Your task to perform on an android device: install app "Adobe Express: Graphic Design" Image 0: 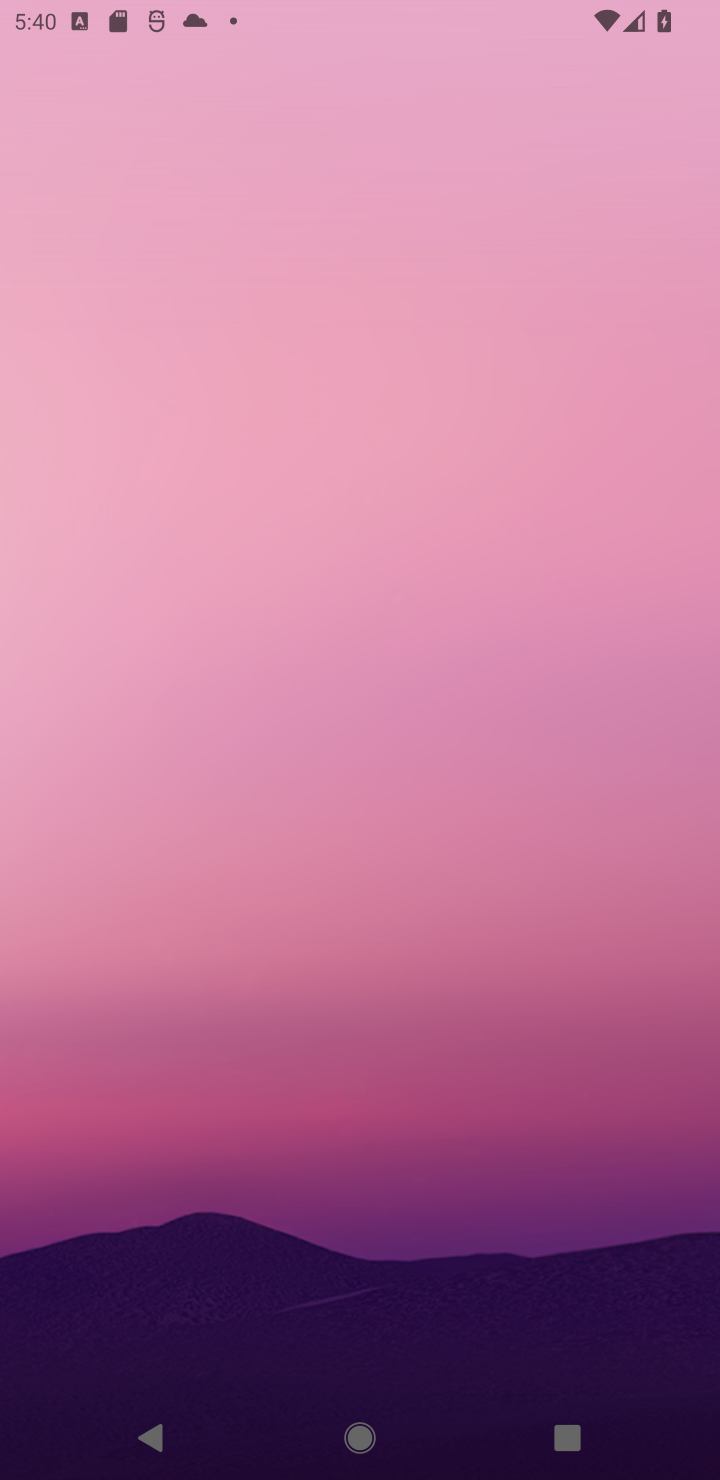
Step 0: press home button
Your task to perform on an android device: install app "Adobe Express: Graphic Design" Image 1: 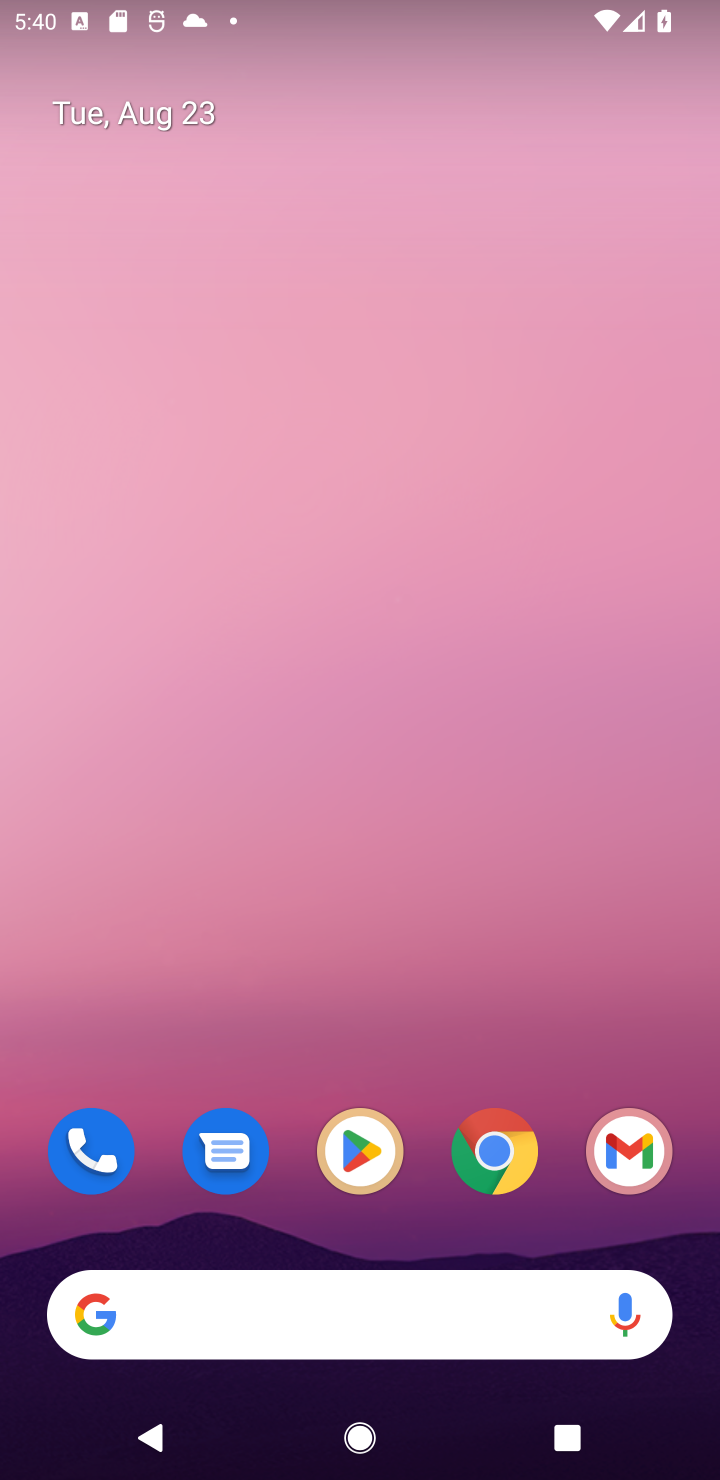
Step 1: press home button
Your task to perform on an android device: install app "Adobe Express: Graphic Design" Image 2: 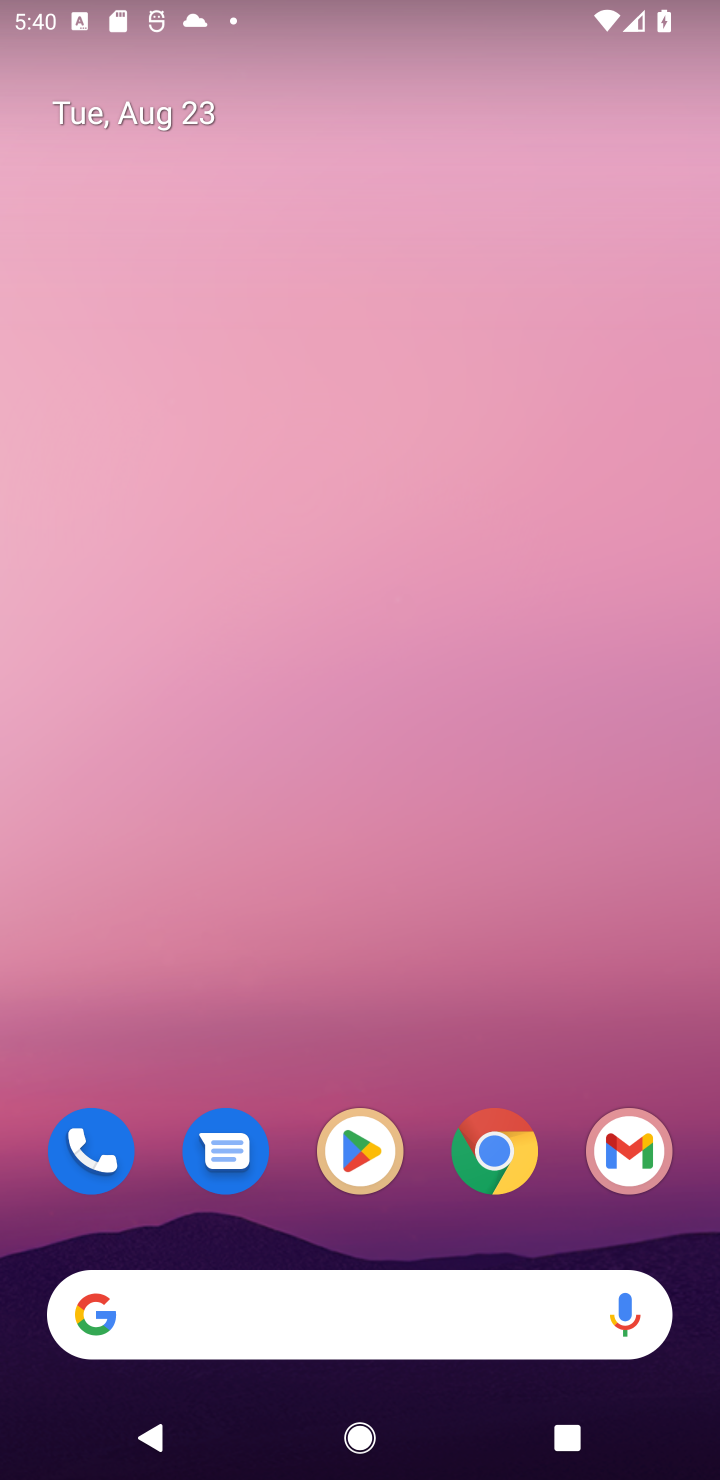
Step 2: click (363, 1145)
Your task to perform on an android device: install app "Adobe Express: Graphic Design" Image 3: 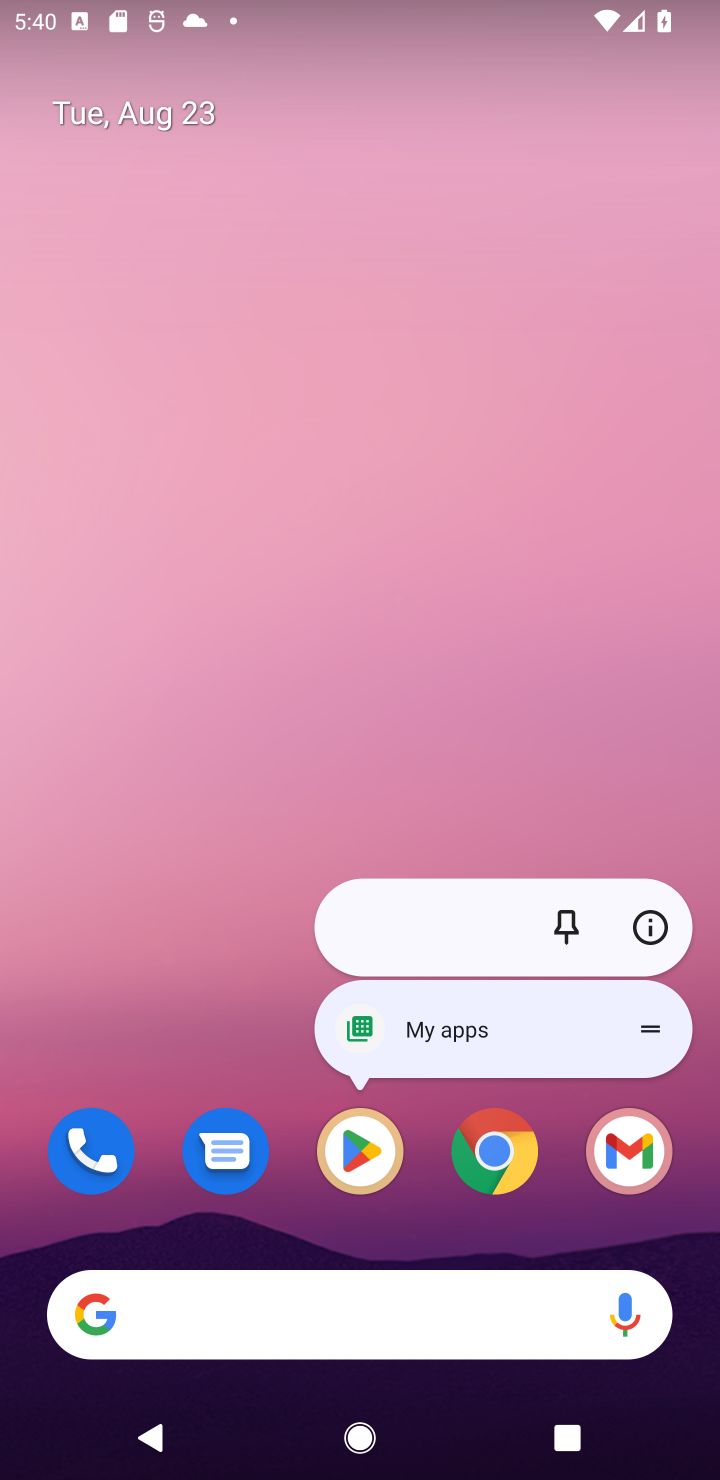
Step 3: click (363, 1161)
Your task to perform on an android device: install app "Adobe Express: Graphic Design" Image 4: 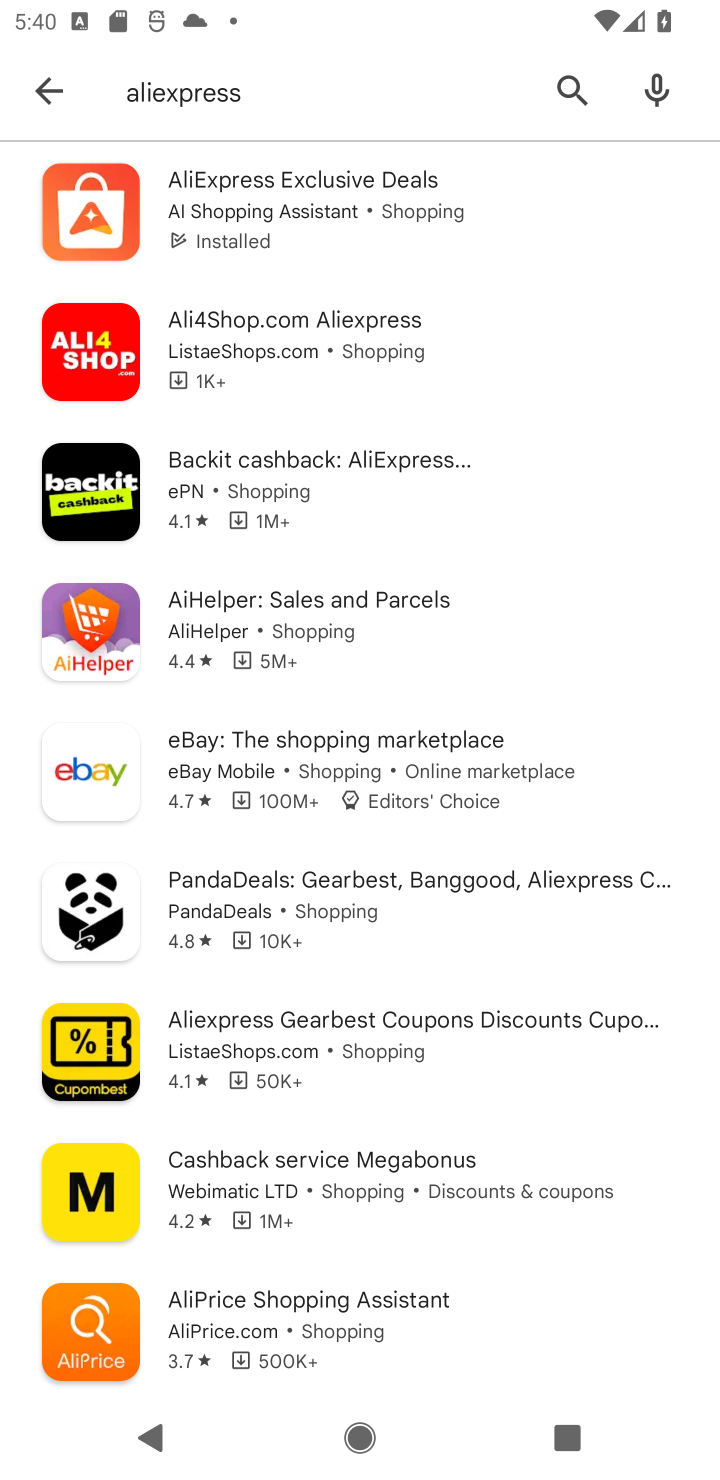
Step 4: click (598, 80)
Your task to perform on an android device: install app "Adobe Express: Graphic Design" Image 5: 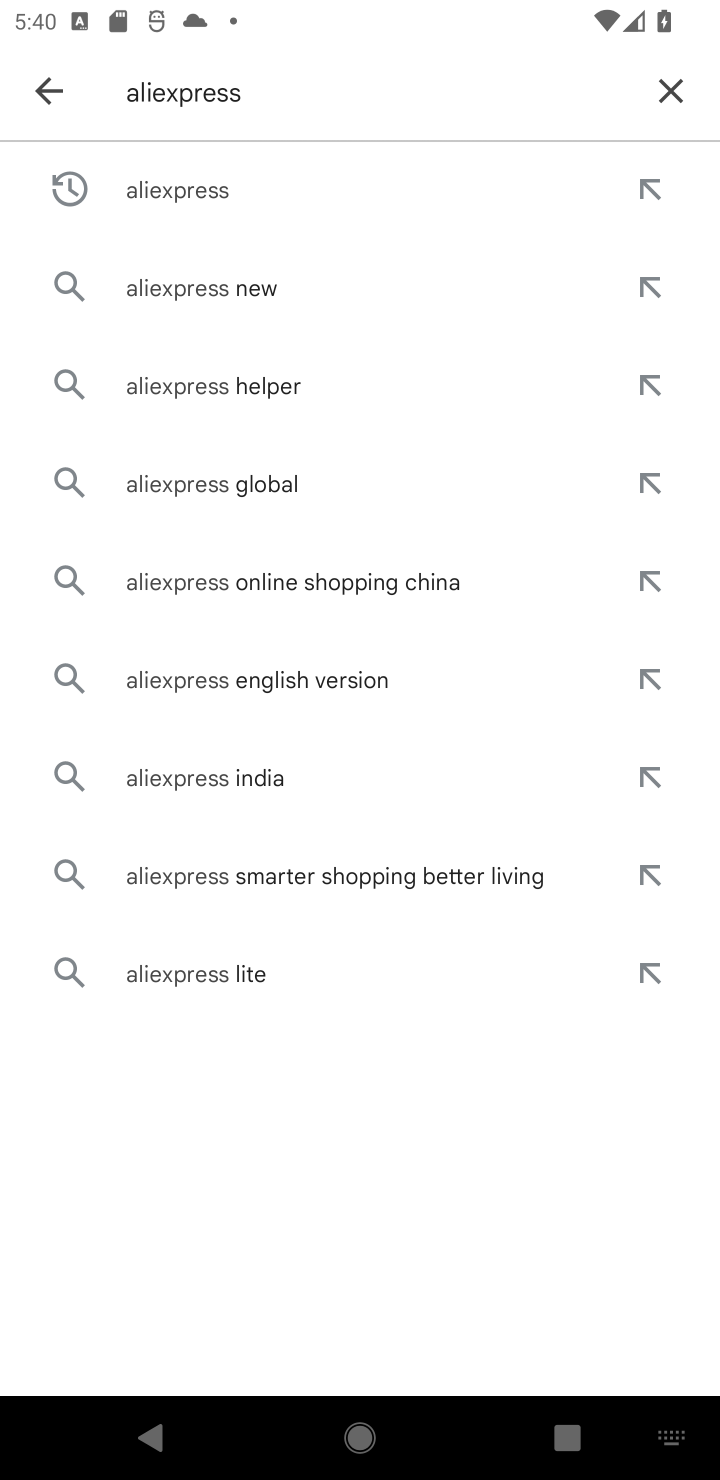
Step 5: click (663, 88)
Your task to perform on an android device: install app "Adobe Express: Graphic Design" Image 6: 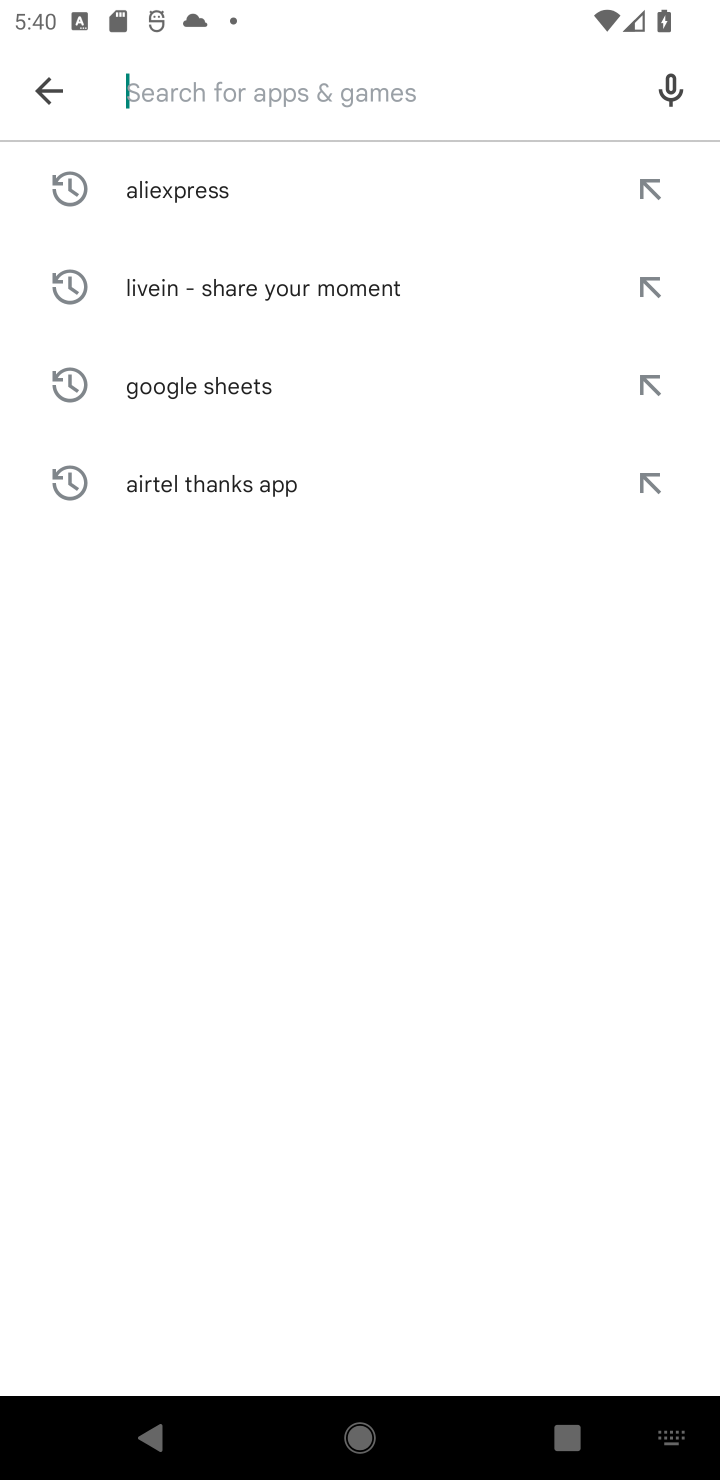
Step 6: type "Adobe Express: Graphic Design"
Your task to perform on an android device: install app "Adobe Express: Graphic Design" Image 7: 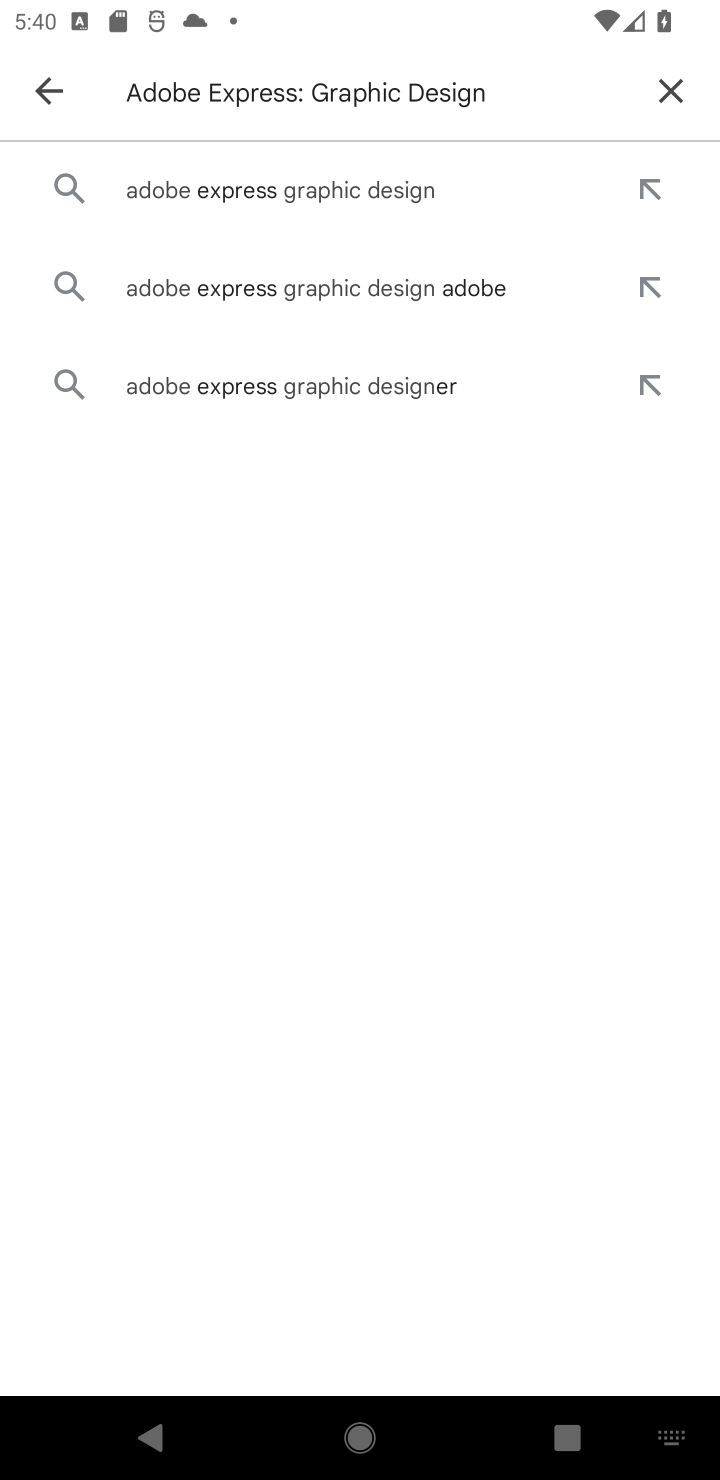
Step 7: click (319, 184)
Your task to perform on an android device: install app "Adobe Express: Graphic Design" Image 8: 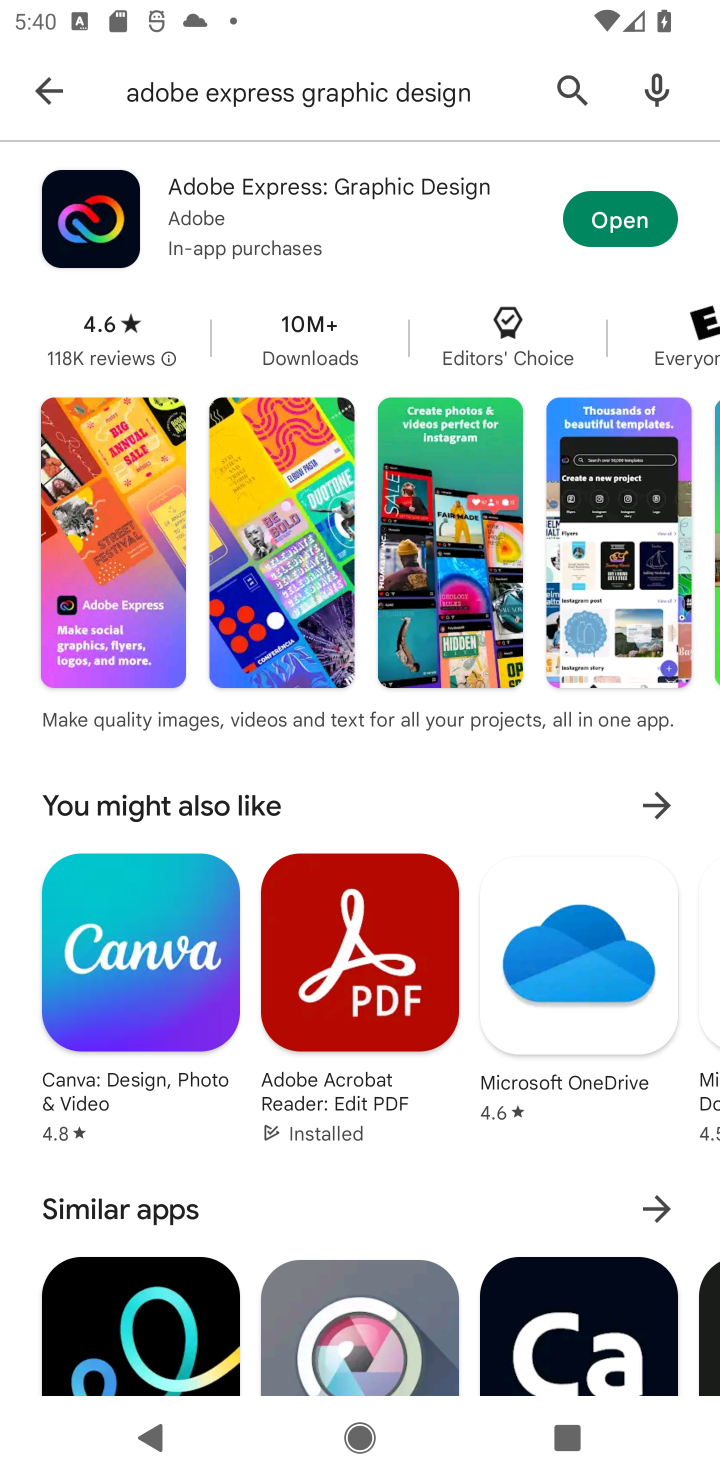
Step 8: task complete